Your task to perform on an android device: Go to Maps Image 0: 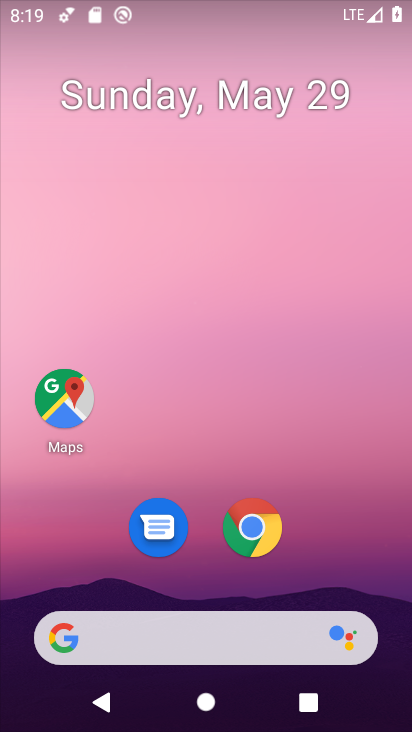
Step 0: press home button
Your task to perform on an android device: Go to Maps Image 1: 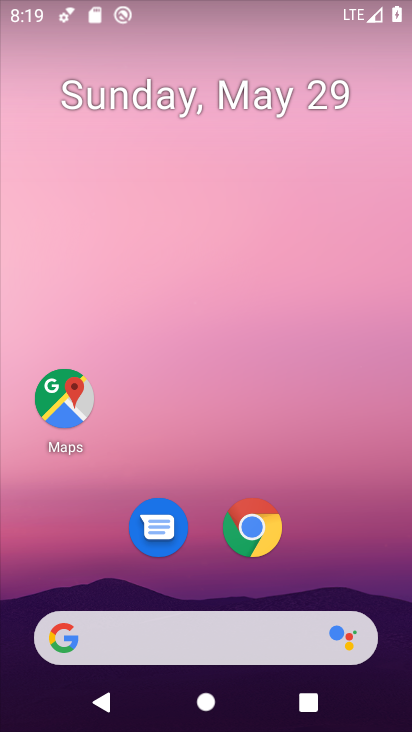
Step 1: click (62, 397)
Your task to perform on an android device: Go to Maps Image 2: 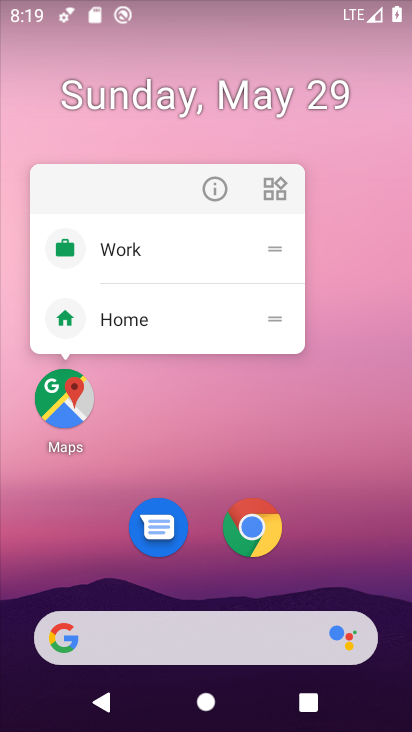
Step 2: click (62, 397)
Your task to perform on an android device: Go to Maps Image 3: 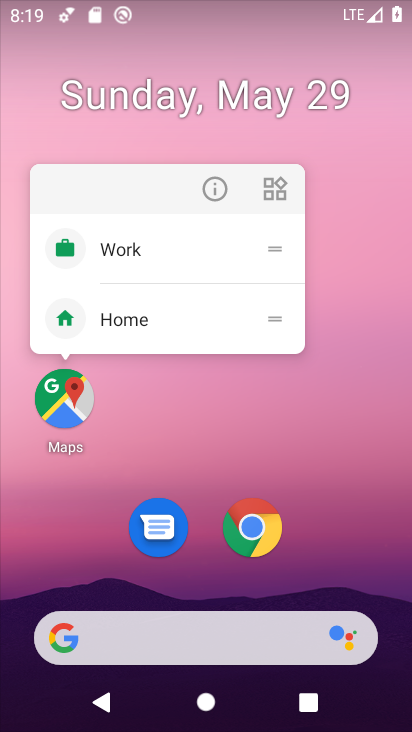
Step 3: click (63, 398)
Your task to perform on an android device: Go to Maps Image 4: 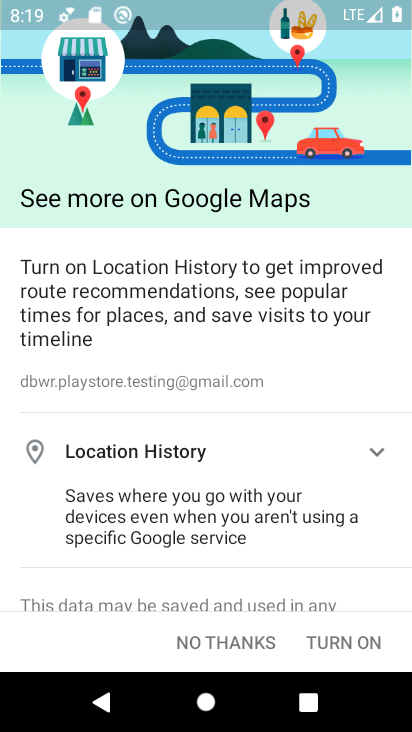
Step 4: drag from (248, 556) to (234, 176)
Your task to perform on an android device: Go to Maps Image 5: 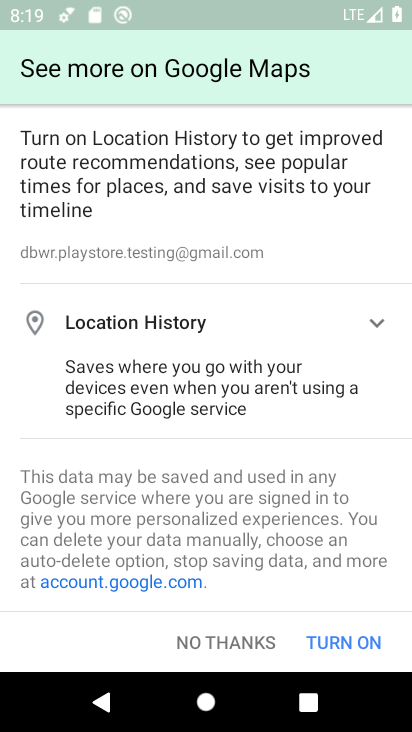
Step 5: click (350, 645)
Your task to perform on an android device: Go to Maps Image 6: 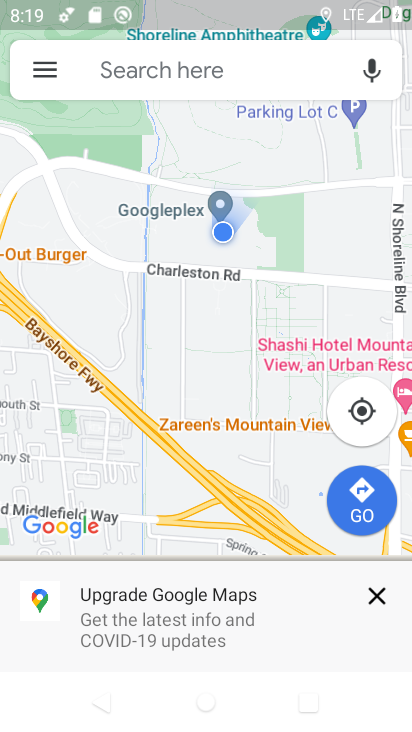
Step 6: click (376, 594)
Your task to perform on an android device: Go to Maps Image 7: 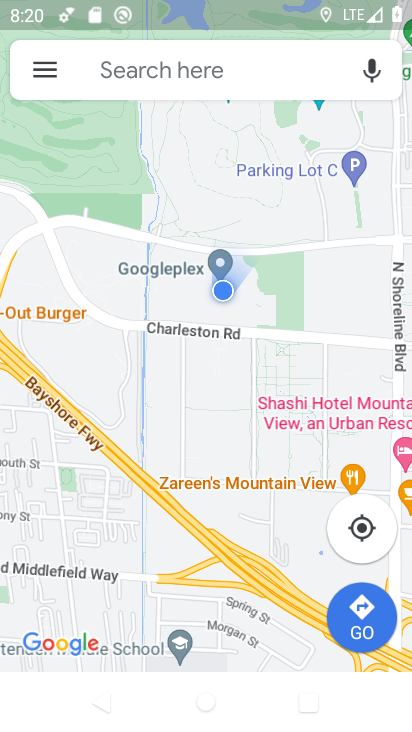
Step 7: task complete